Your task to perform on an android device: turn off smart reply in the gmail app Image 0: 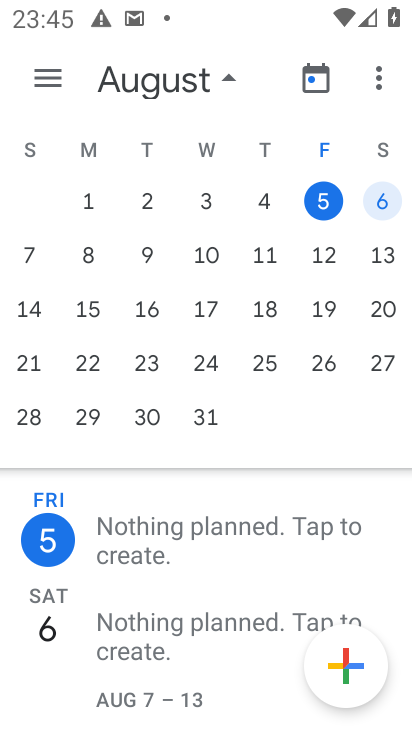
Step 0: press home button
Your task to perform on an android device: turn off smart reply in the gmail app Image 1: 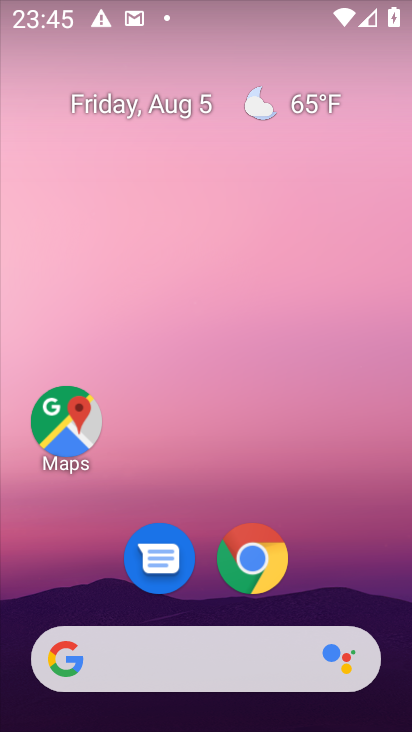
Step 1: drag from (354, 569) to (360, 263)
Your task to perform on an android device: turn off smart reply in the gmail app Image 2: 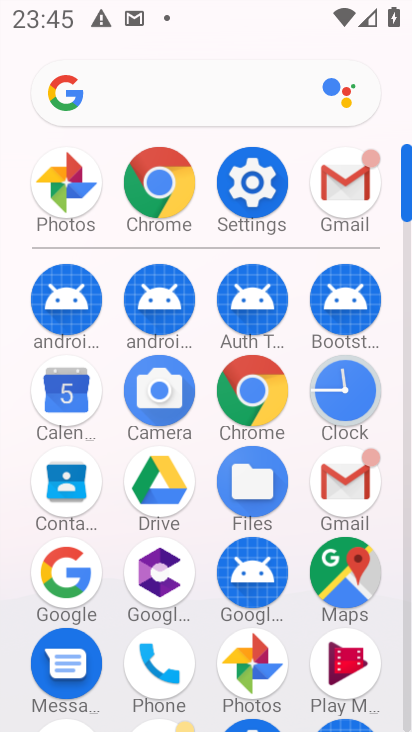
Step 2: click (340, 489)
Your task to perform on an android device: turn off smart reply in the gmail app Image 3: 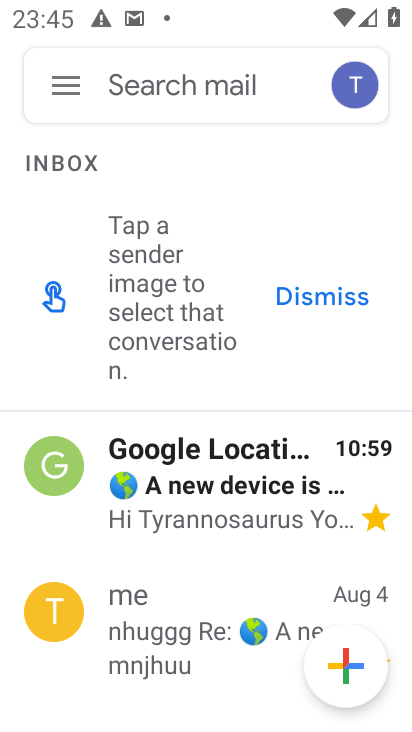
Step 3: click (68, 81)
Your task to perform on an android device: turn off smart reply in the gmail app Image 4: 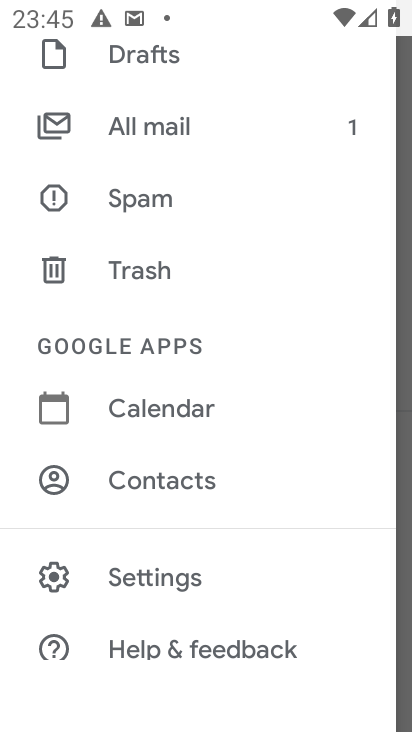
Step 4: click (248, 575)
Your task to perform on an android device: turn off smart reply in the gmail app Image 5: 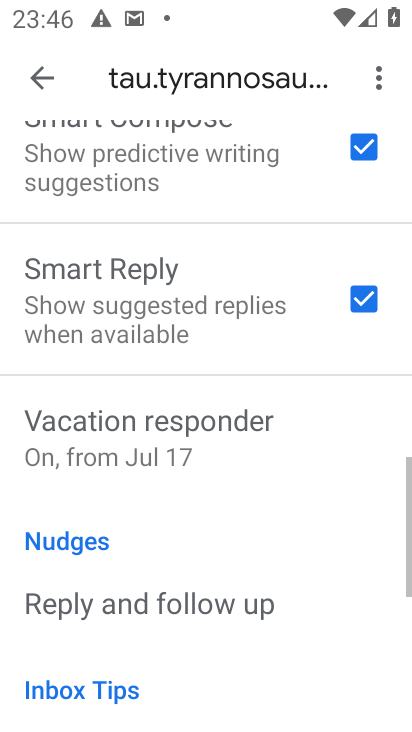
Step 5: drag from (277, 230) to (282, 297)
Your task to perform on an android device: turn off smart reply in the gmail app Image 6: 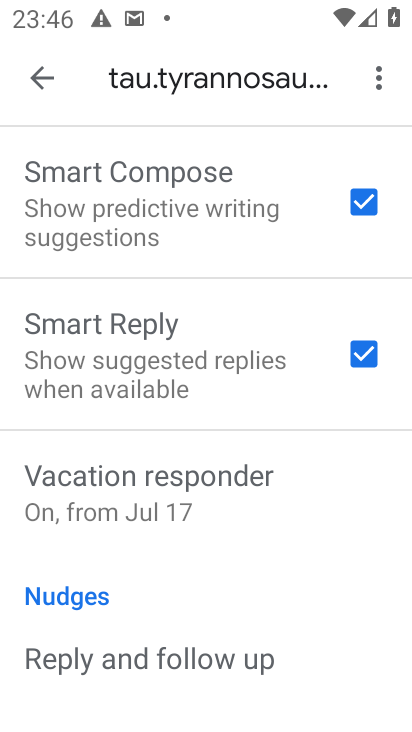
Step 6: drag from (287, 179) to (280, 253)
Your task to perform on an android device: turn off smart reply in the gmail app Image 7: 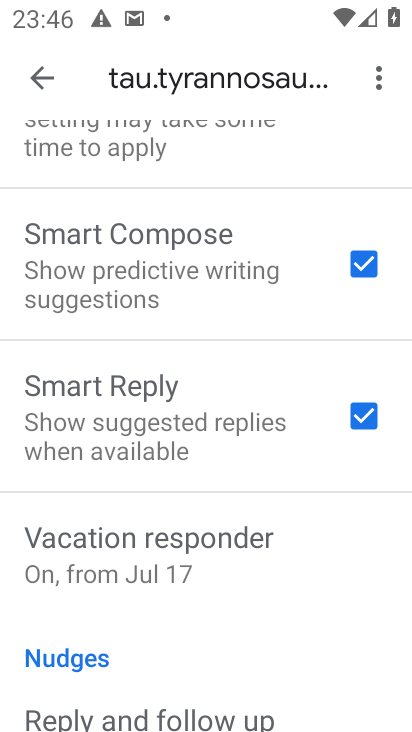
Step 7: click (367, 413)
Your task to perform on an android device: turn off smart reply in the gmail app Image 8: 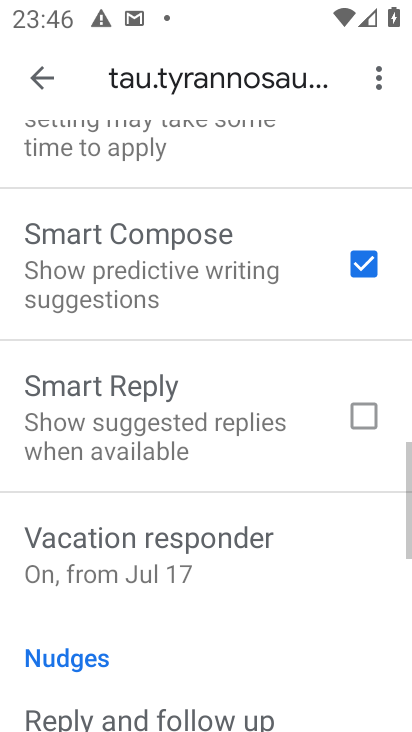
Step 8: task complete